Your task to perform on an android device: Empty the shopping cart on bestbuy.com. Image 0: 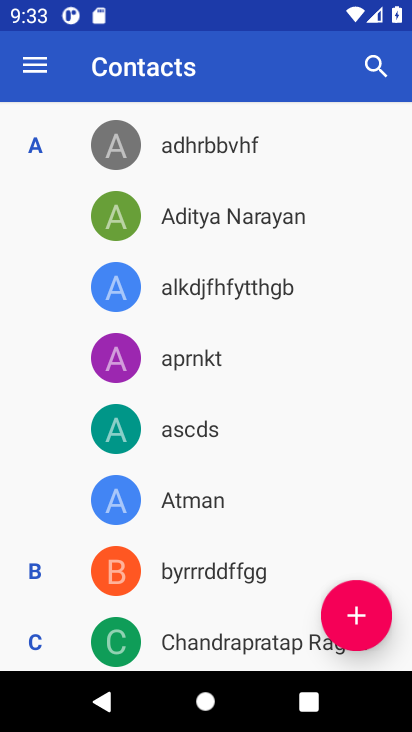
Step 0: press home button
Your task to perform on an android device: Empty the shopping cart on bestbuy.com. Image 1: 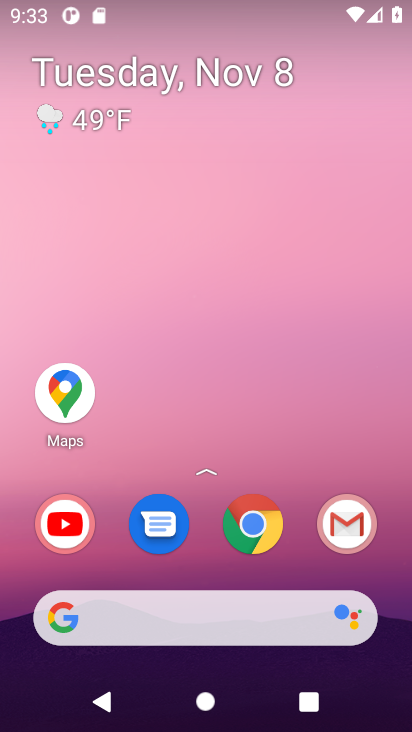
Step 1: click (248, 521)
Your task to perform on an android device: Empty the shopping cart on bestbuy.com. Image 2: 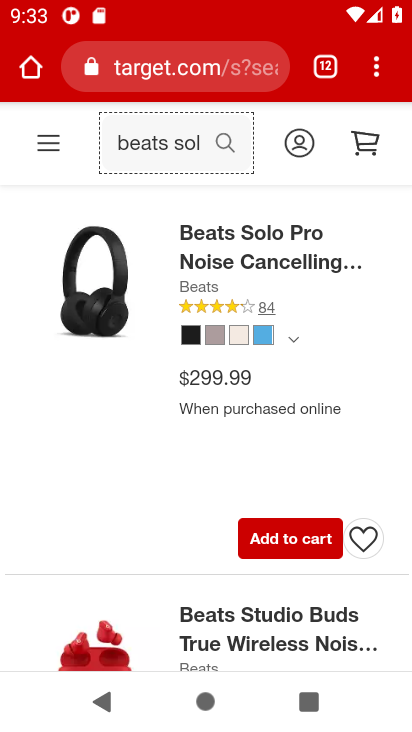
Step 2: click (140, 60)
Your task to perform on an android device: Empty the shopping cart on bestbuy.com. Image 3: 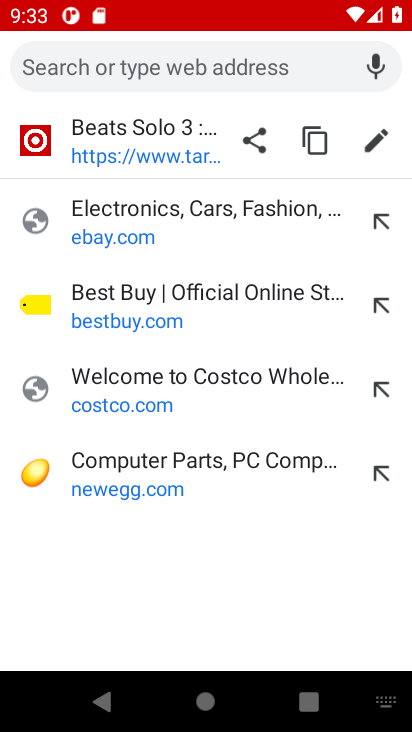
Step 3: click (130, 328)
Your task to perform on an android device: Empty the shopping cart on bestbuy.com. Image 4: 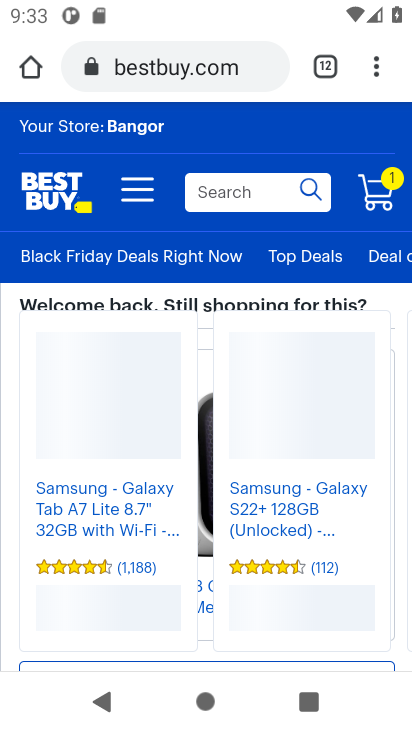
Step 4: click (380, 196)
Your task to perform on an android device: Empty the shopping cart on bestbuy.com. Image 5: 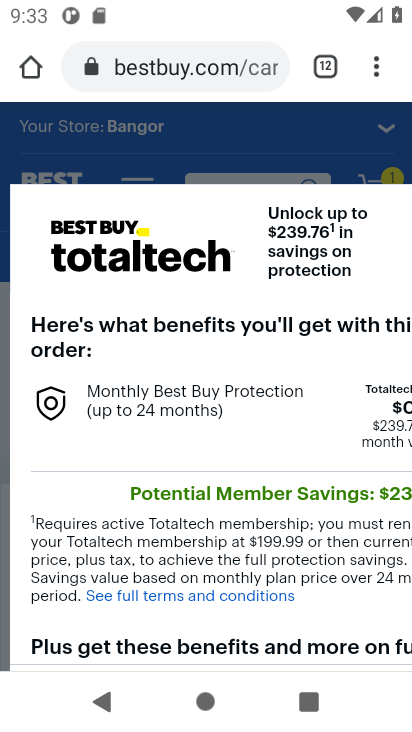
Step 5: drag from (158, 459) to (169, 164)
Your task to perform on an android device: Empty the shopping cart on bestbuy.com. Image 6: 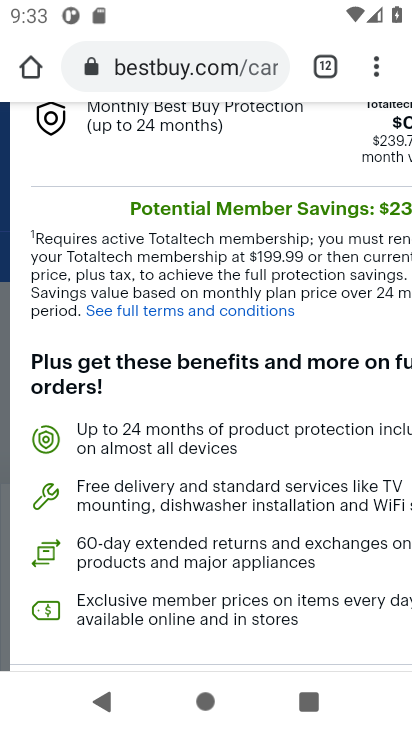
Step 6: drag from (137, 430) to (138, 143)
Your task to perform on an android device: Empty the shopping cart on bestbuy.com. Image 7: 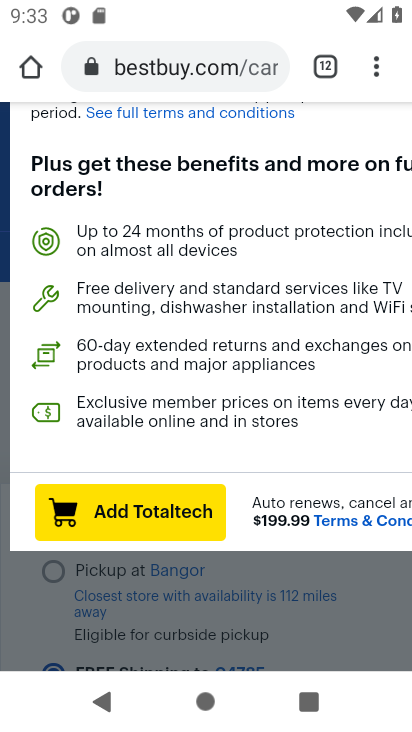
Step 7: click (393, 592)
Your task to perform on an android device: Empty the shopping cart on bestbuy.com. Image 8: 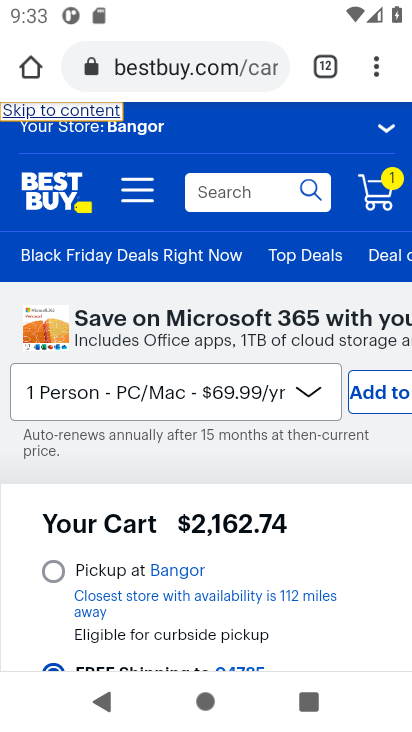
Step 8: drag from (149, 438) to (137, 158)
Your task to perform on an android device: Empty the shopping cart on bestbuy.com. Image 9: 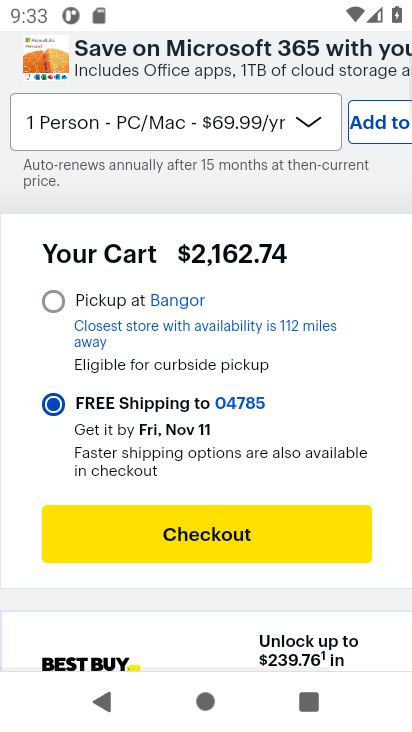
Step 9: drag from (124, 488) to (125, 111)
Your task to perform on an android device: Empty the shopping cart on bestbuy.com. Image 10: 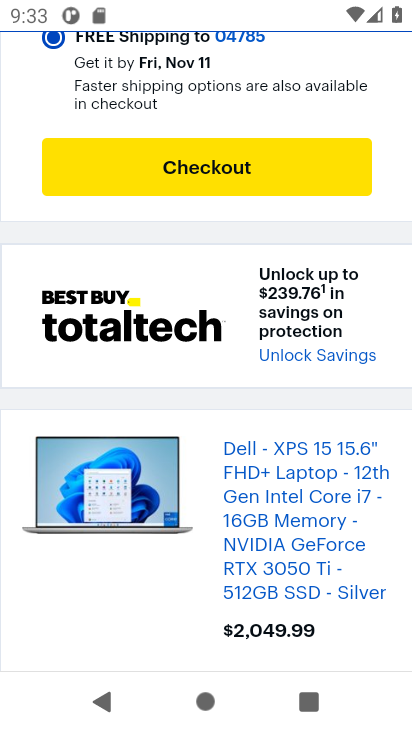
Step 10: drag from (166, 433) to (167, 154)
Your task to perform on an android device: Empty the shopping cart on bestbuy.com. Image 11: 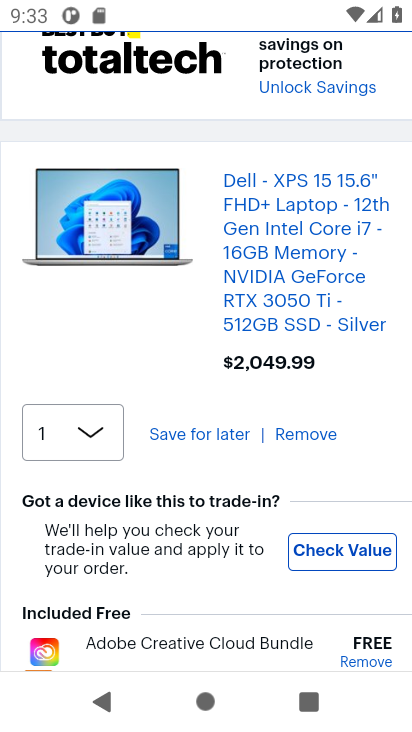
Step 11: click (299, 427)
Your task to perform on an android device: Empty the shopping cart on bestbuy.com. Image 12: 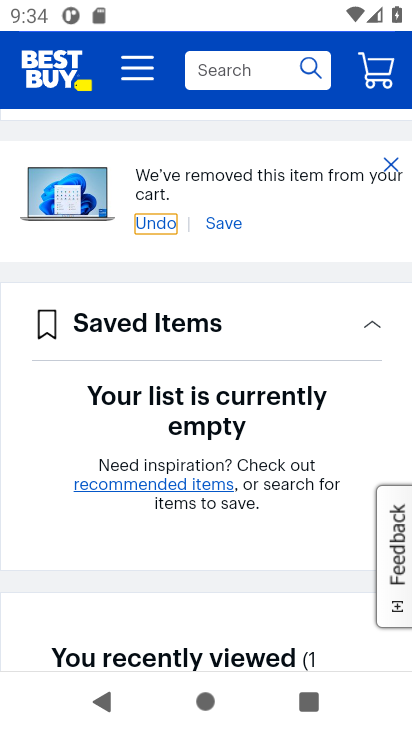
Step 12: task complete